Your task to perform on an android device: toggle pop-ups in chrome Image 0: 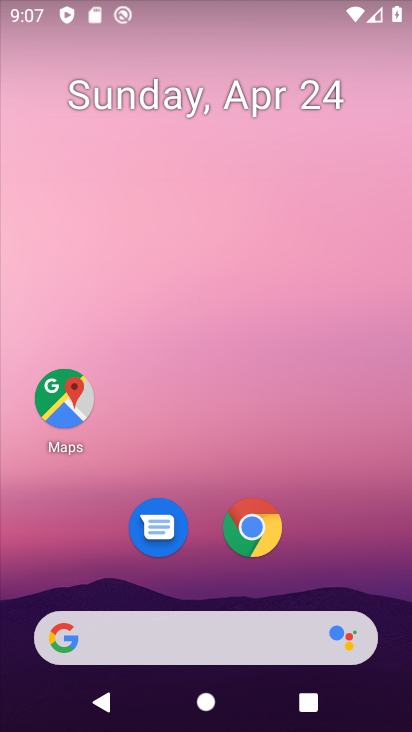
Step 0: click (258, 551)
Your task to perform on an android device: toggle pop-ups in chrome Image 1: 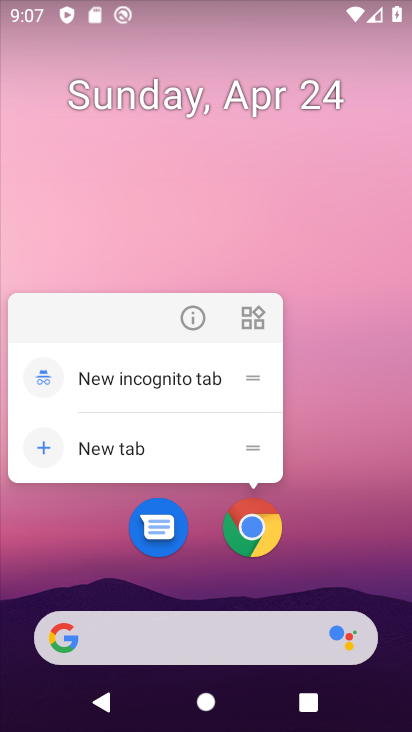
Step 1: click (258, 540)
Your task to perform on an android device: toggle pop-ups in chrome Image 2: 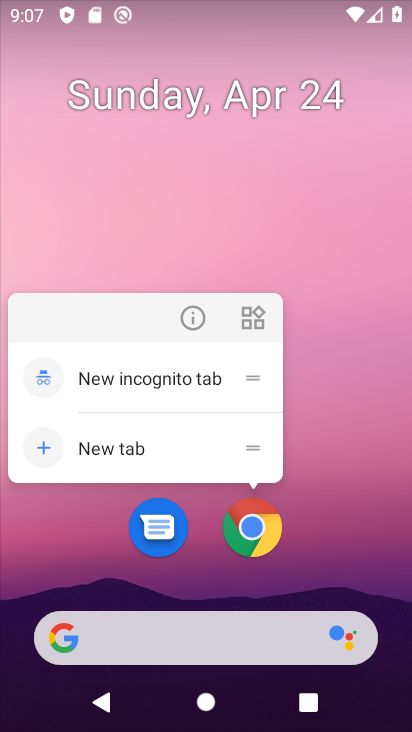
Step 2: click (260, 529)
Your task to perform on an android device: toggle pop-ups in chrome Image 3: 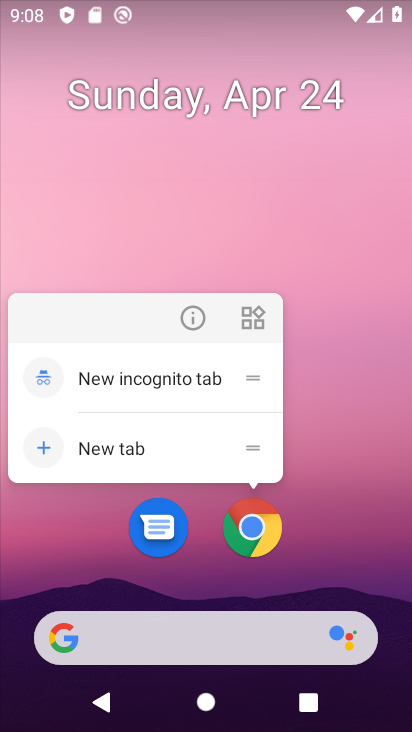
Step 3: click (247, 526)
Your task to perform on an android device: toggle pop-ups in chrome Image 4: 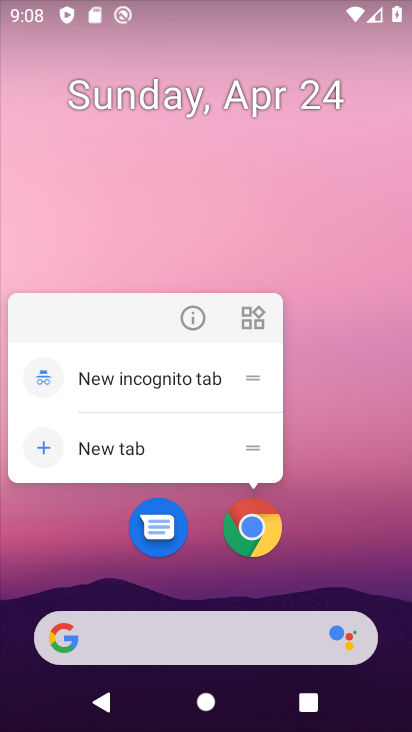
Step 4: click (250, 520)
Your task to perform on an android device: toggle pop-ups in chrome Image 5: 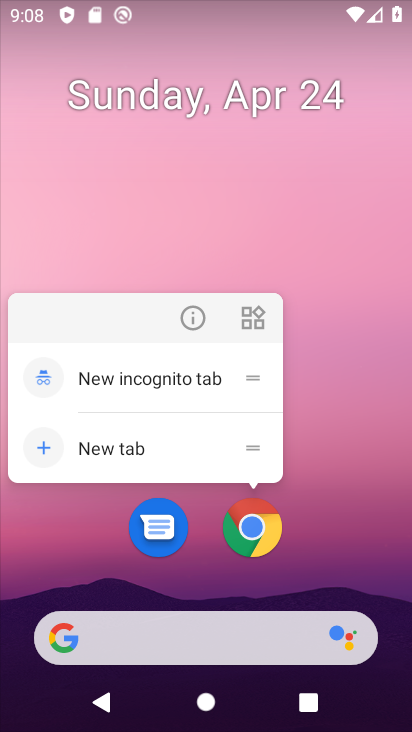
Step 5: click (256, 528)
Your task to perform on an android device: toggle pop-ups in chrome Image 6: 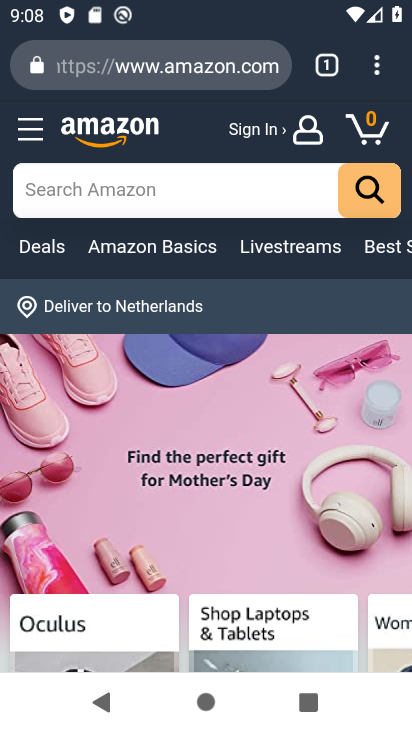
Step 6: drag from (376, 59) to (164, 580)
Your task to perform on an android device: toggle pop-ups in chrome Image 7: 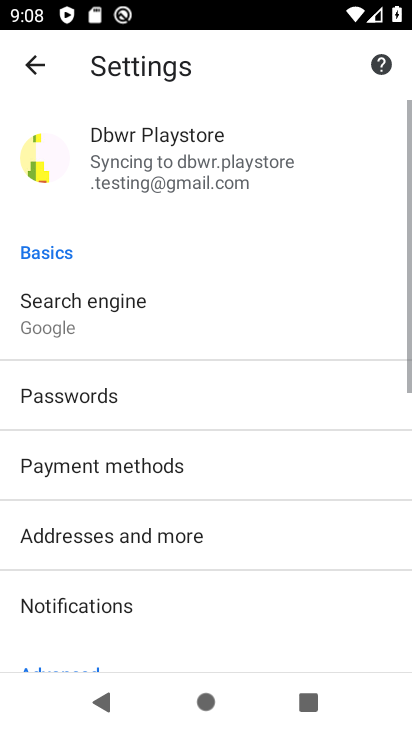
Step 7: drag from (142, 594) to (279, 51)
Your task to perform on an android device: toggle pop-ups in chrome Image 8: 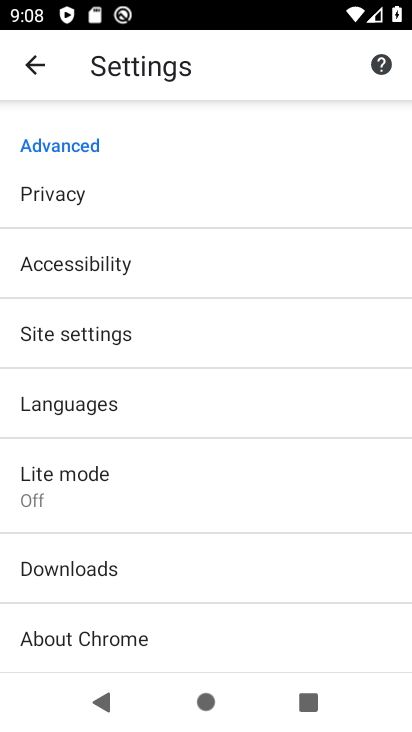
Step 8: click (110, 329)
Your task to perform on an android device: toggle pop-ups in chrome Image 9: 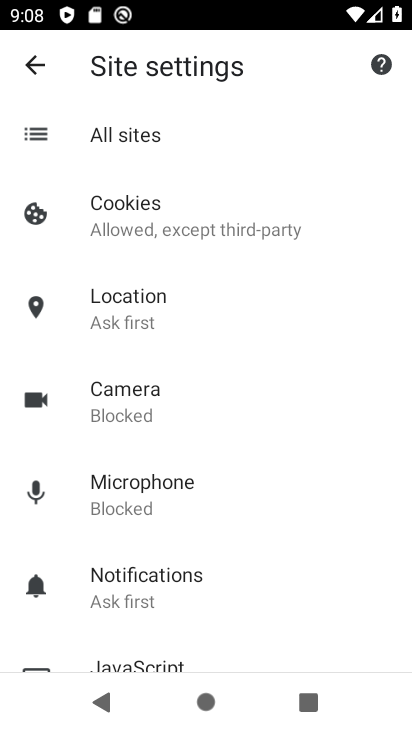
Step 9: drag from (182, 560) to (351, 68)
Your task to perform on an android device: toggle pop-ups in chrome Image 10: 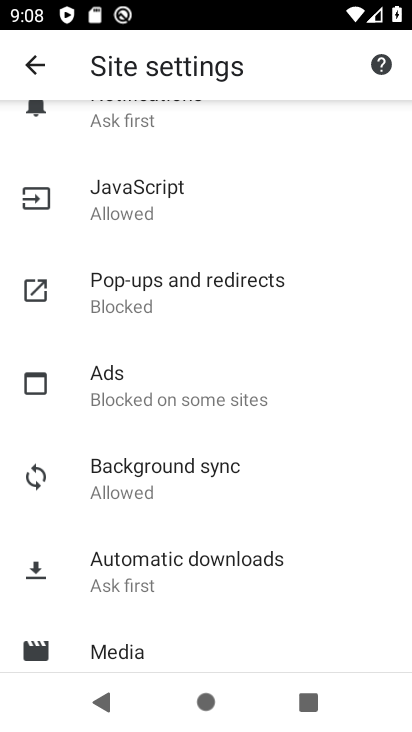
Step 10: click (193, 296)
Your task to perform on an android device: toggle pop-ups in chrome Image 11: 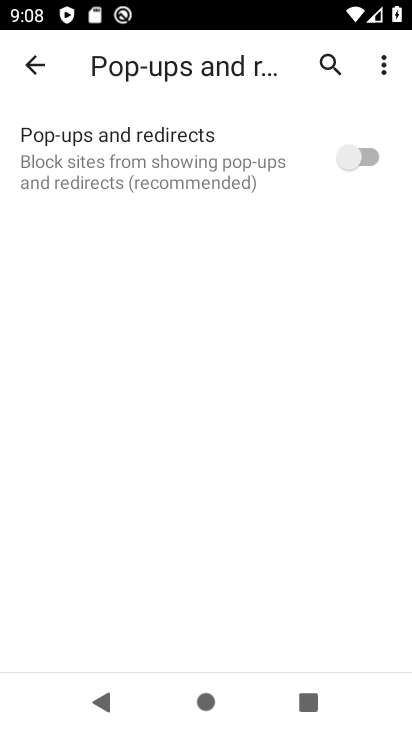
Step 11: click (353, 154)
Your task to perform on an android device: toggle pop-ups in chrome Image 12: 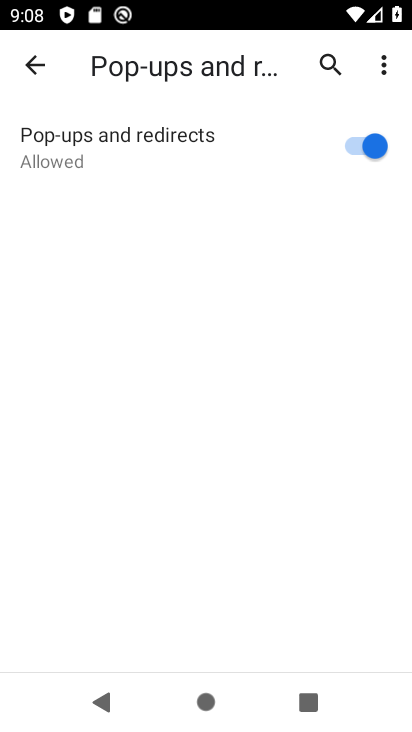
Step 12: task complete